Your task to perform on an android device: toggle data saver in the chrome app Image 0: 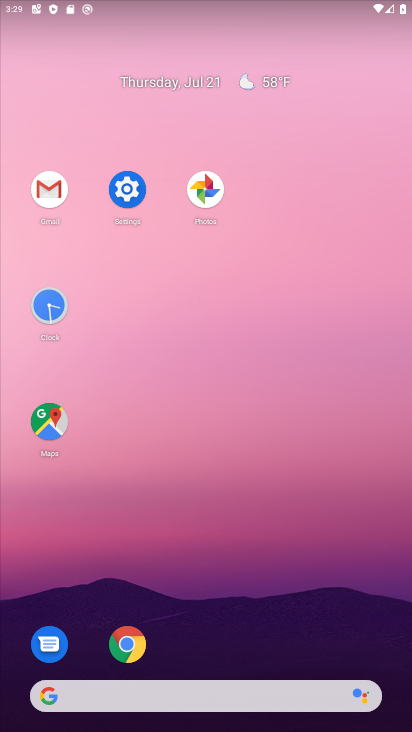
Step 0: click (113, 646)
Your task to perform on an android device: toggle data saver in the chrome app Image 1: 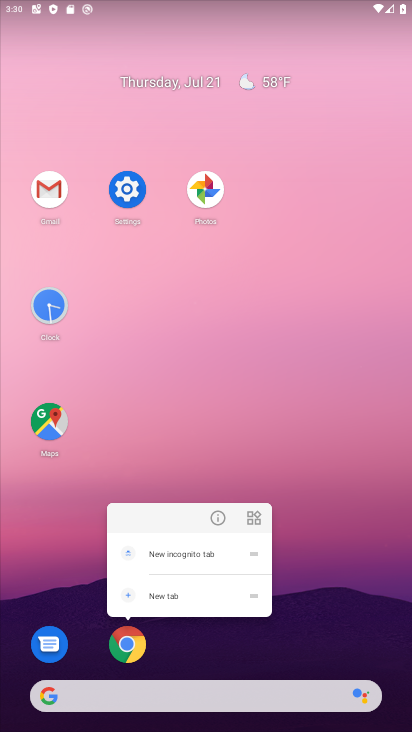
Step 1: click (118, 650)
Your task to perform on an android device: toggle data saver in the chrome app Image 2: 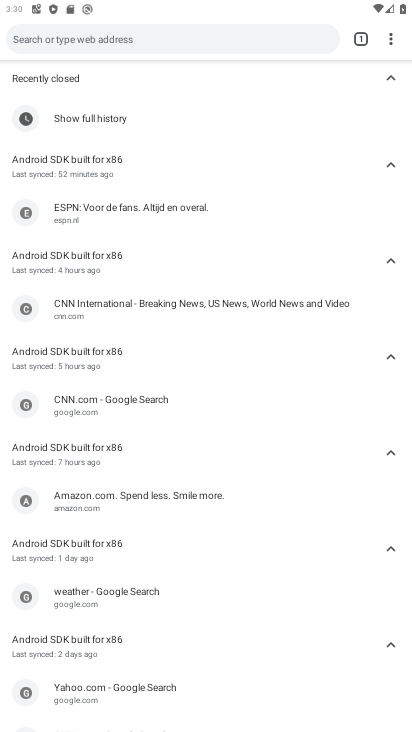
Step 2: click (393, 35)
Your task to perform on an android device: toggle data saver in the chrome app Image 3: 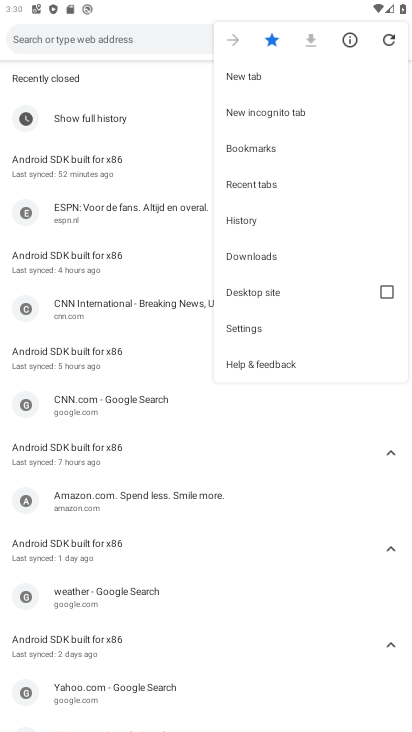
Step 3: click (261, 327)
Your task to perform on an android device: toggle data saver in the chrome app Image 4: 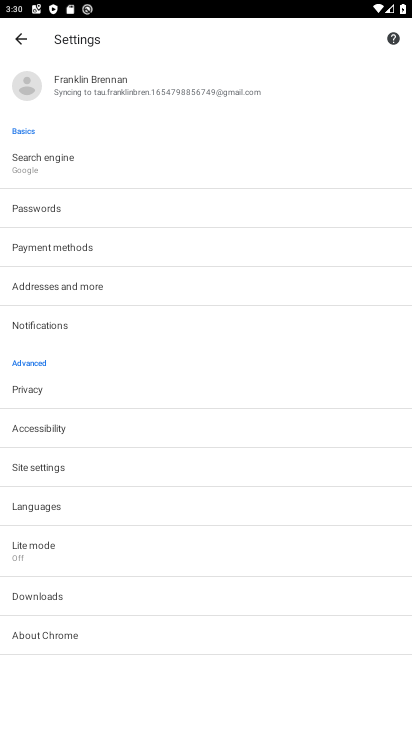
Step 4: click (54, 544)
Your task to perform on an android device: toggle data saver in the chrome app Image 5: 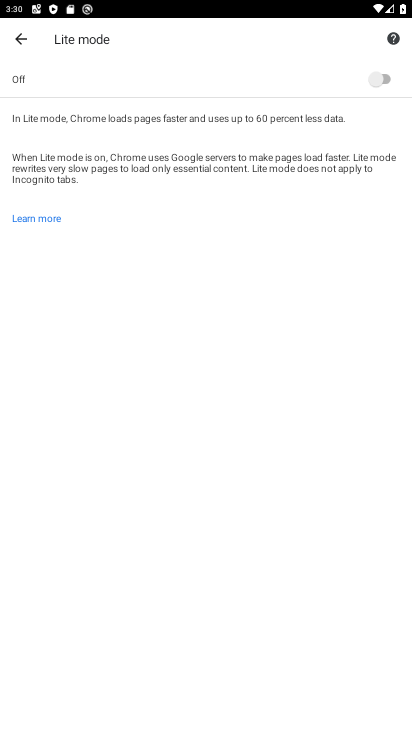
Step 5: click (366, 76)
Your task to perform on an android device: toggle data saver in the chrome app Image 6: 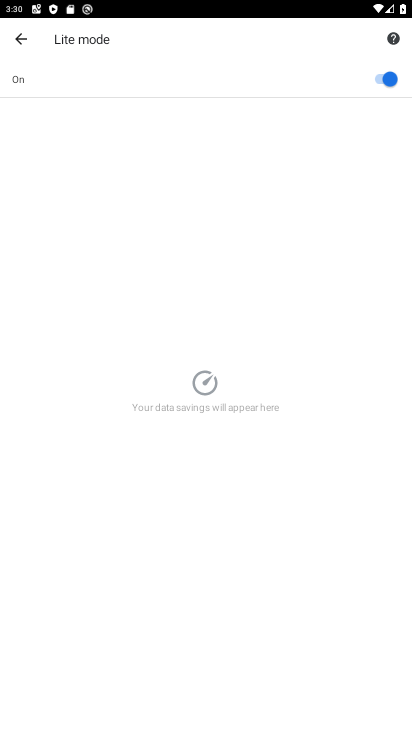
Step 6: task complete